Your task to perform on an android device: set the timer Image 0: 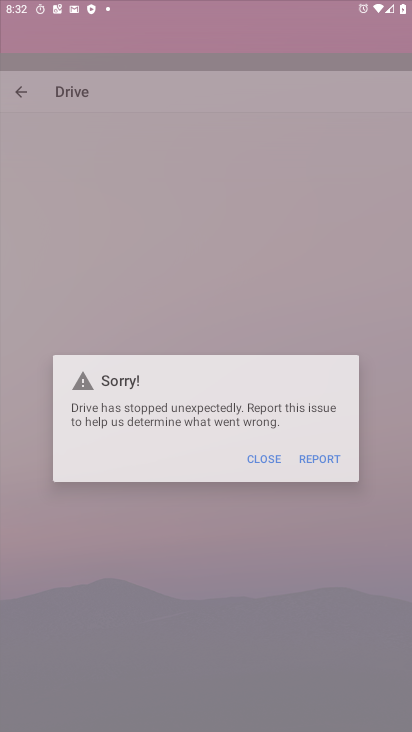
Step 0: drag from (215, 565) to (197, 141)
Your task to perform on an android device: set the timer Image 1: 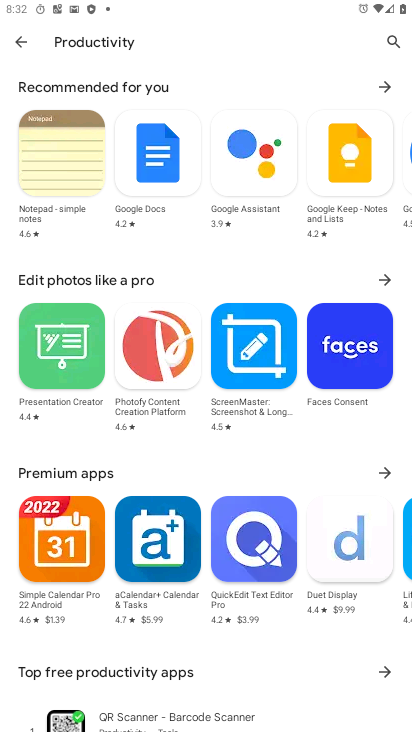
Step 1: press home button
Your task to perform on an android device: set the timer Image 2: 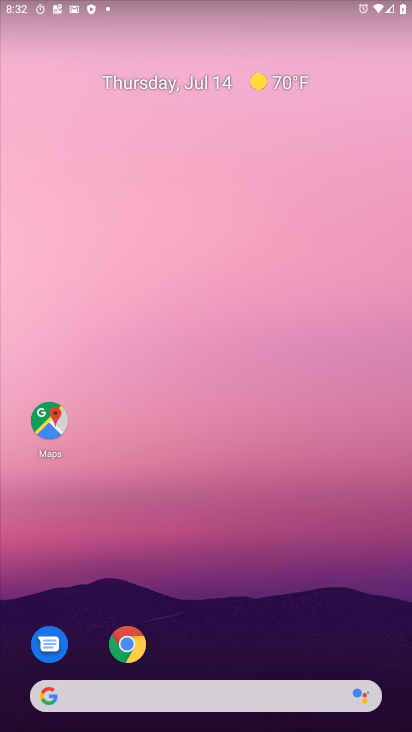
Step 2: drag from (221, 707) to (230, 91)
Your task to perform on an android device: set the timer Image 3: 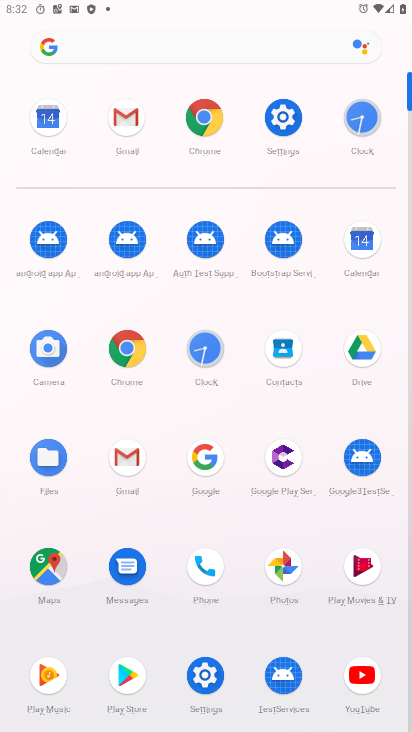
Step 3: click (367, 118)
Your task to perform on an android device: set the timer Image 4: 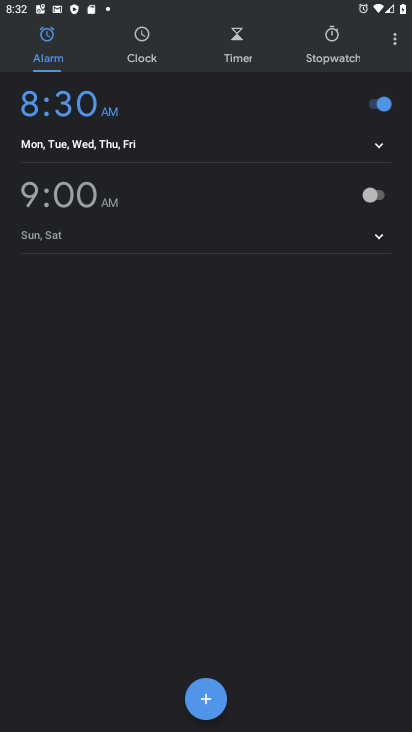
Step 4: click (232, 51)
Your task to perform on an android device: set the timer Image 5: 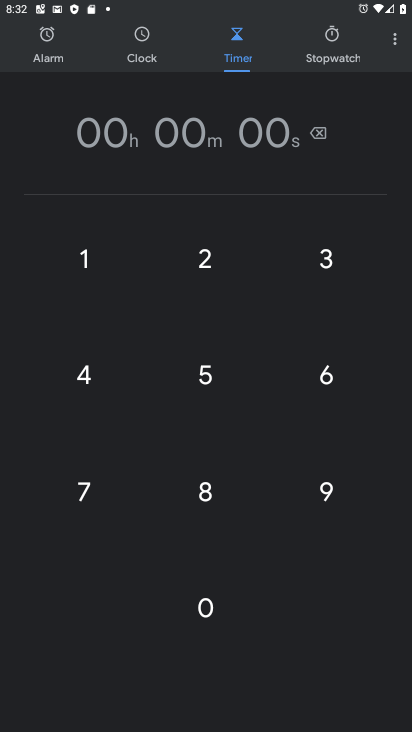
Step 5: click (91, 262)
Your task to perform on an android device: set the timer Image 6: 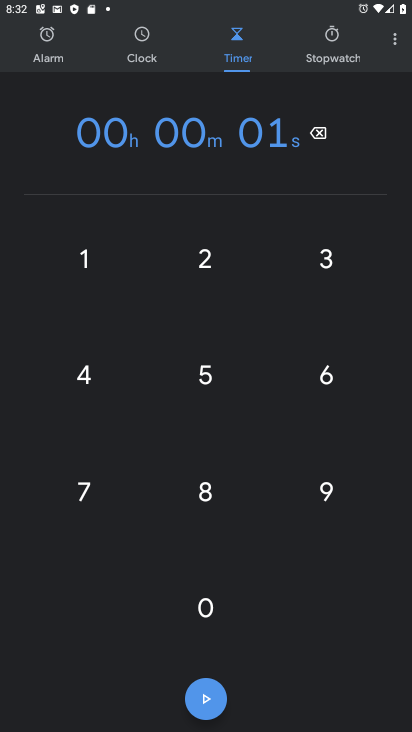
Step 6: click (202, 273)
Your task to perform on an android device: set the timer Image 7: 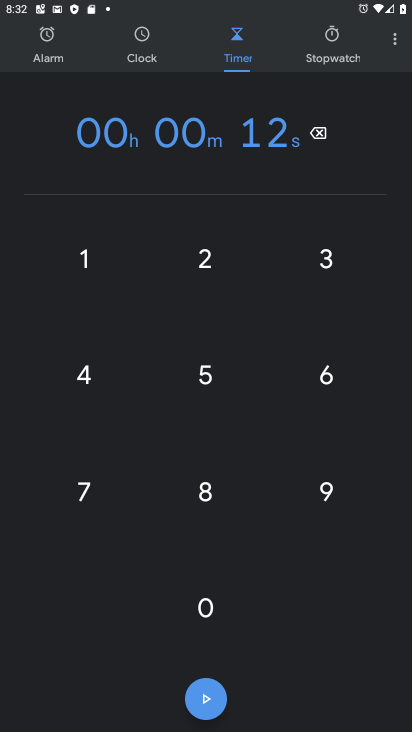
Step 7: click (210, 702)
Your task to perform on an android device: set the timer Image 8: 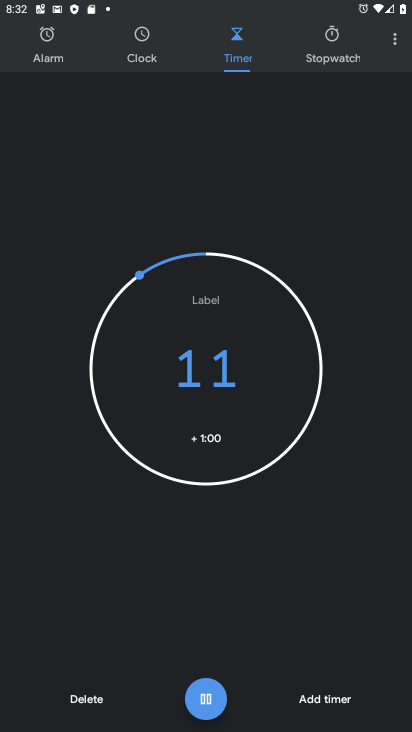
Step 8: click (210, 702)
Your task to perform on an android device: set the timer Image 9: 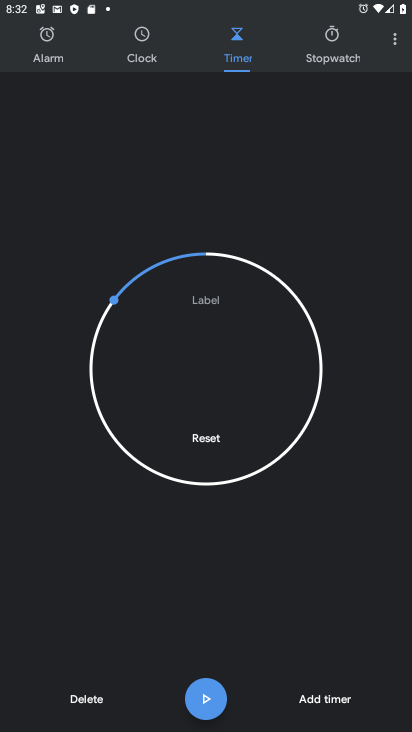
Step 9: task complete